Your task to perform on an android device: Open Youtube and go to "Your channel" Image 0: 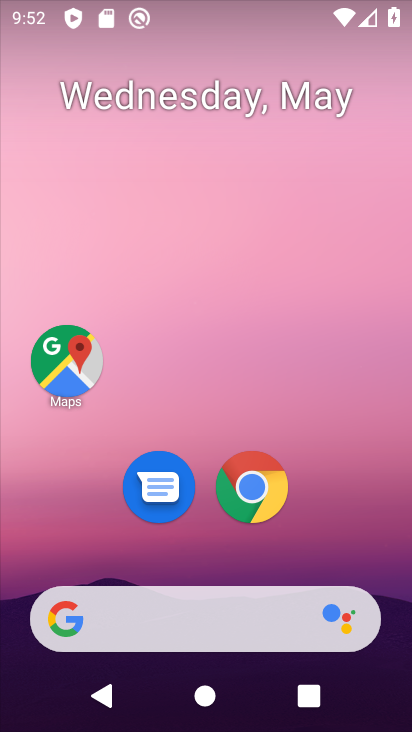
Step 0: press home button
Your task to perform on an android device: Open Youtube and go to "Your channel" Image 1: 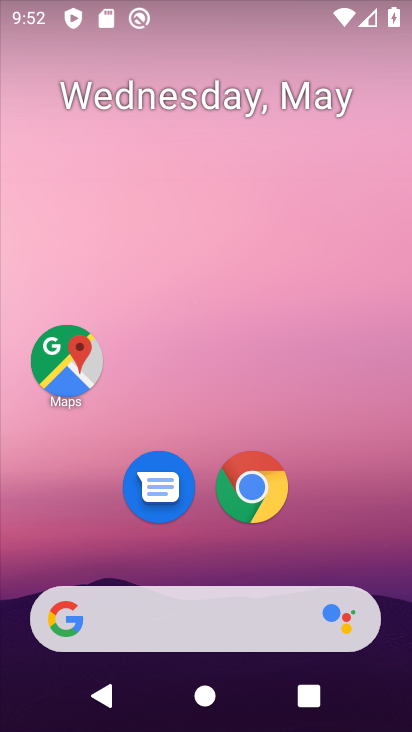
Step 1: drag from (202, 642) to (247, 212)
Your task to perform on an android device: Open Youtube and go to "Your channel" Image 2: 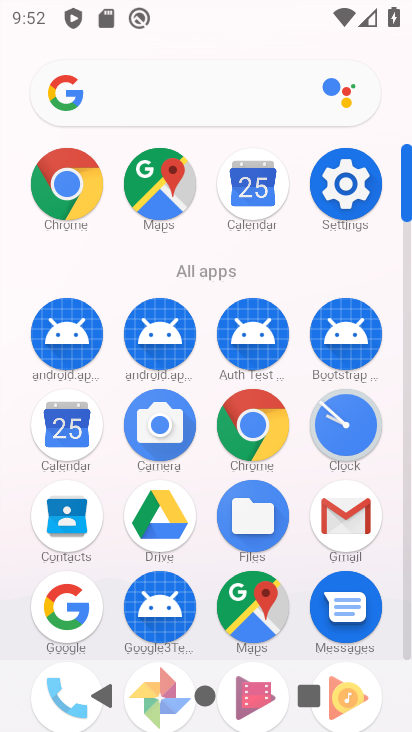
Step 2: drag from (110, 469) to (162, 268)
Your task to perform on an android device: Open Youtube and go to "Your channel" Image 3: 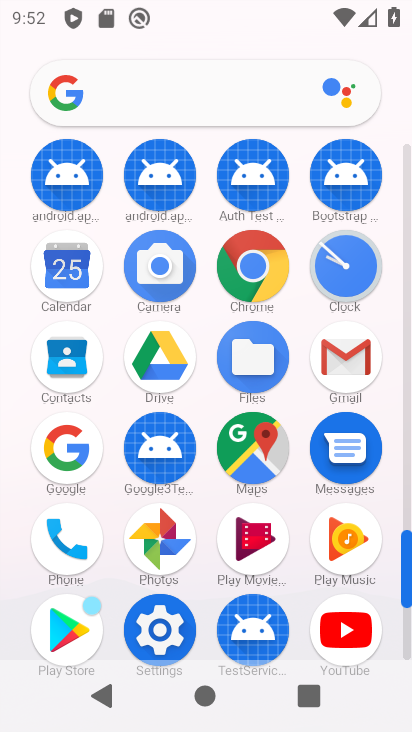
Step 3: click (366, 623)
Your task to perform on an android device: Open Youtube and go to "Your channel" Image 4: 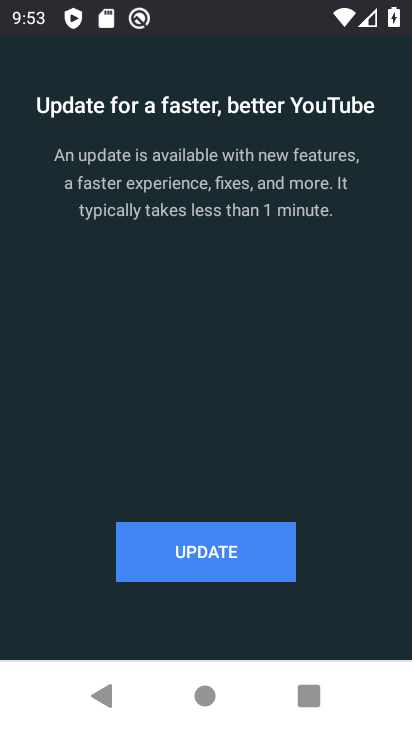
Step 4: click (213, 565)
Your task to perform on an android device: Open Youtube and go to "Your channel" Image 5: 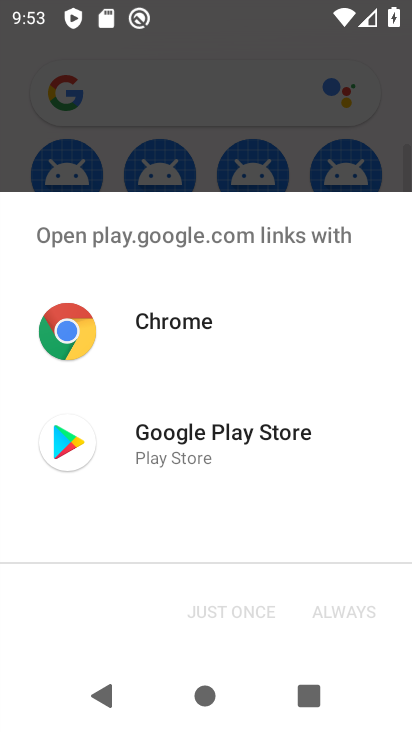
Step 5: click (230, 469)
Your task to perform on an android device: Open Youtube and go to "Your channel" Image 6: 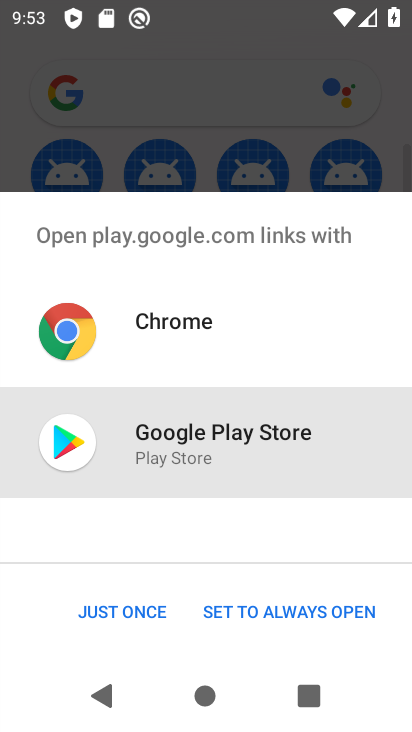
Step 6: click (141, 599)
Your task to perform on an android device: Open Youtube and go to "Your channel" Image 7: 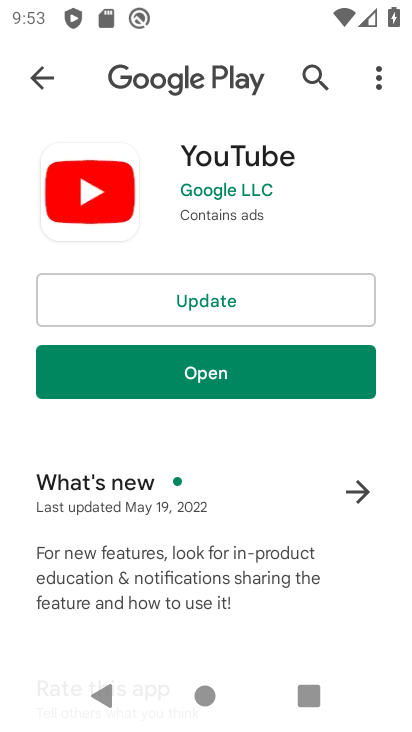
Step 7: click (230, 310)
Your task to perform on an android device: Open Youtube and go to "Your channel" Image 8: 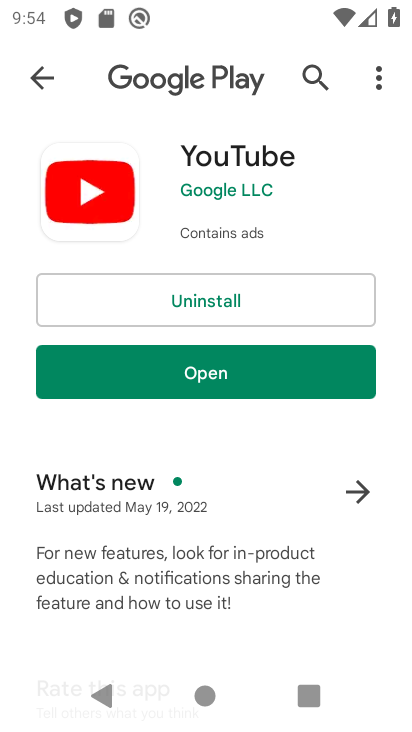
Step 8: click (222, 366)
Your task to perform on an android device: Open Youtube and go to "Your channel" Image 9: 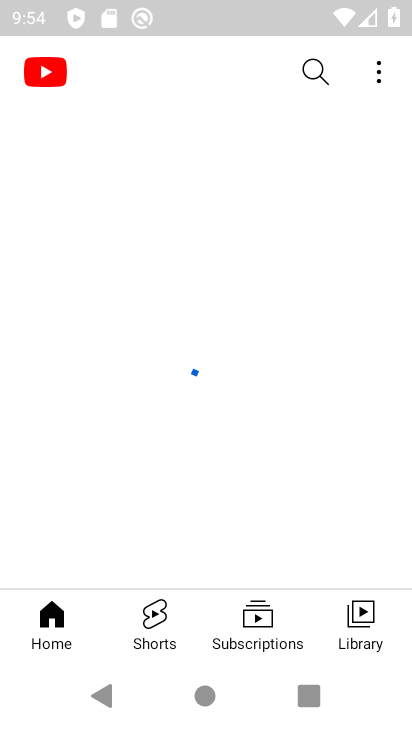
Step 9: click (369, 68)
Your task to perform on an android device: Open Youtube and go to "Your channel" Image 10: 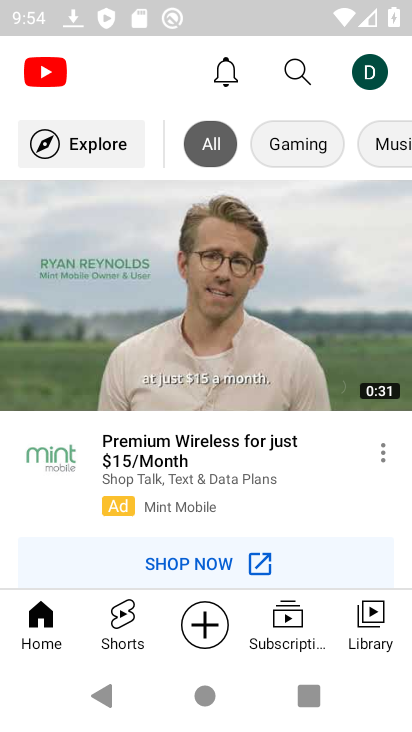
Step 10: click (370, 87)
Your task to perform on an android device: Open Youtube and go to "Your channel" Image 11: 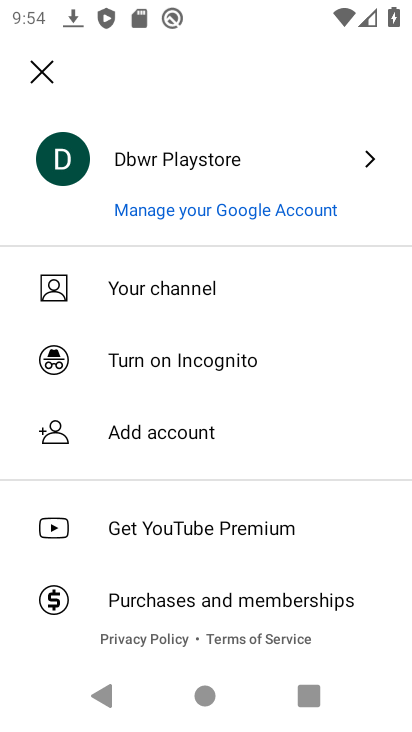
Step 11: click (164, 277)
Your task to perform on an android device: Open Youtube and go to "Your channel" Image 12: 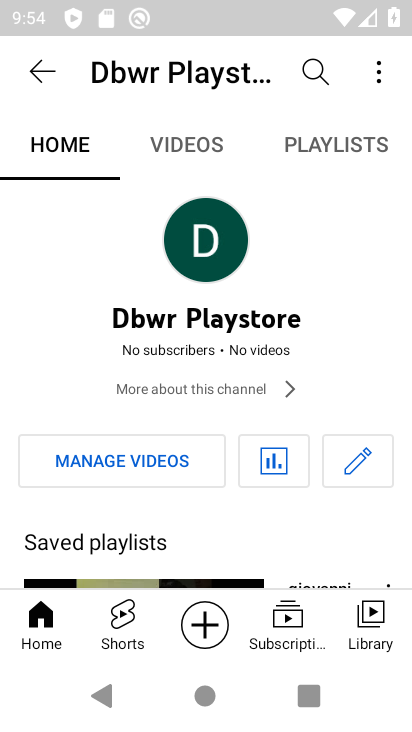
Step 12: task complete